Your task to perform on an android device: Go to notification settings Image 0: 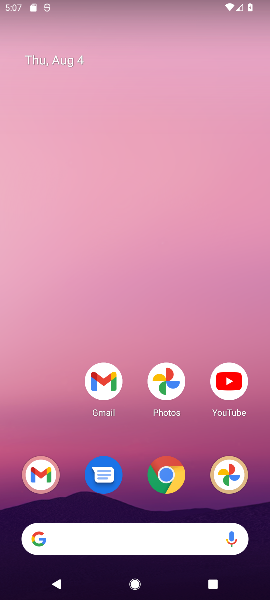
Step 0: drag from (196, 446) to (168, 202)
Your task to perform on an android device: Go to notification settings Image 1: 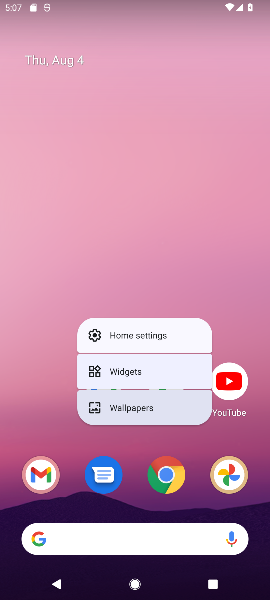
Step 1: click (21, 421)
Your task to perform on an android device: Go to notification settings Image 2: 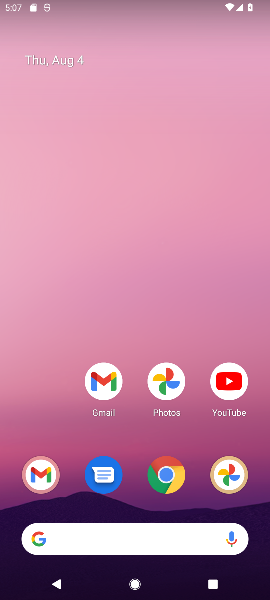
Step 2: drag from (196, 355) to (165, 0)
Your task to perform on an android device: Go to notification settings Image 3: 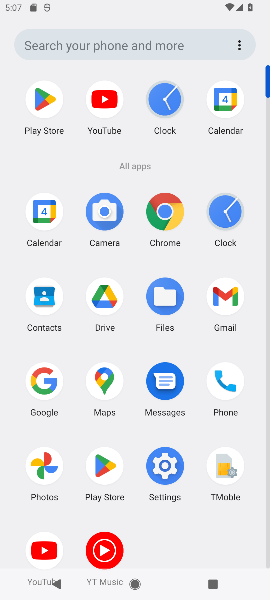
Step 3: click (167, 467)
Your task to perform on an android device: Go to notification settings Image 4: 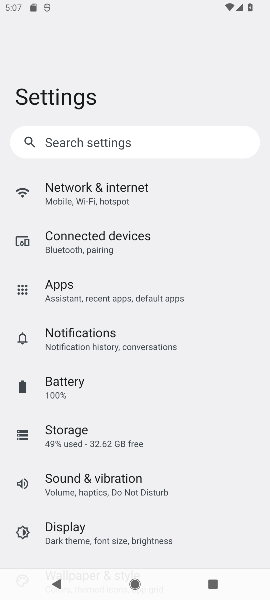
Step 4: click (102, 338)
Your task to perform on an android device: Go to notification settings Image 5: 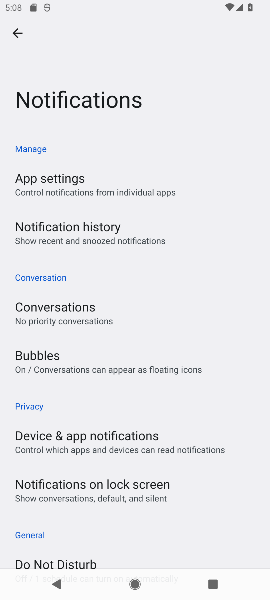
Step 5: task complete